Your task to perform on an android device: Open Reddit.com Image 0: 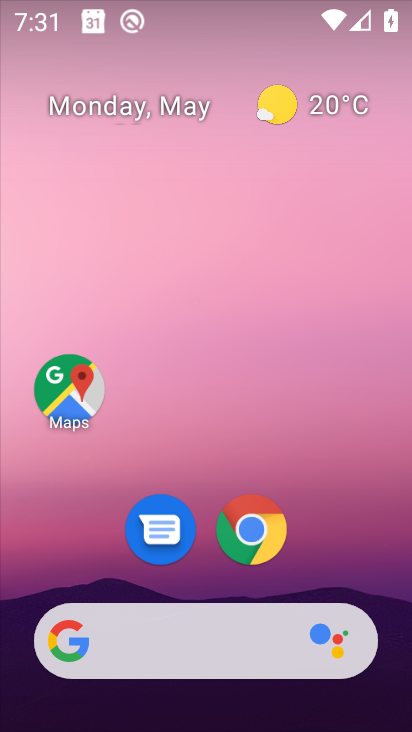
Step 0: press home button
Your task to perform on an android device: Open Reddit.com Image 1: 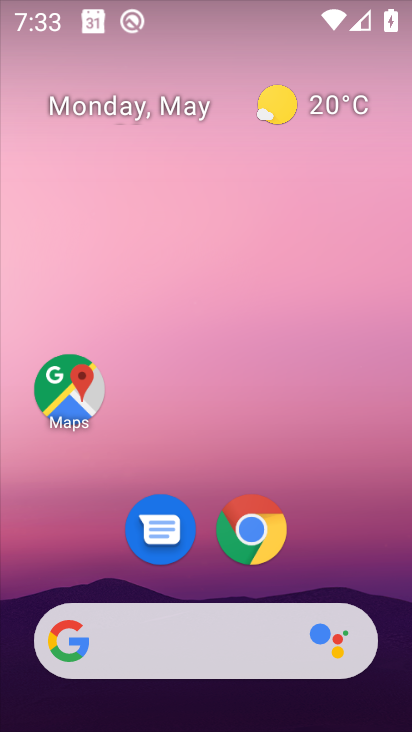
Step 1: click (258, 523)
Your task to perform on an android device: Open Reddit.com Image 2: 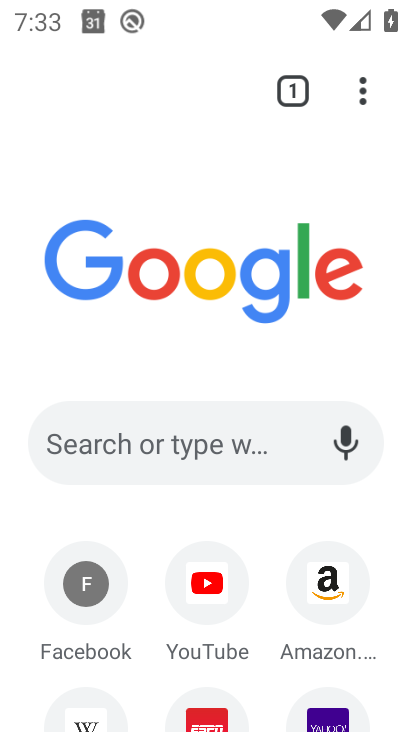
Step 2: click (226, 453)
Your task to perform on an android device: Open Reddit.com Image 3: 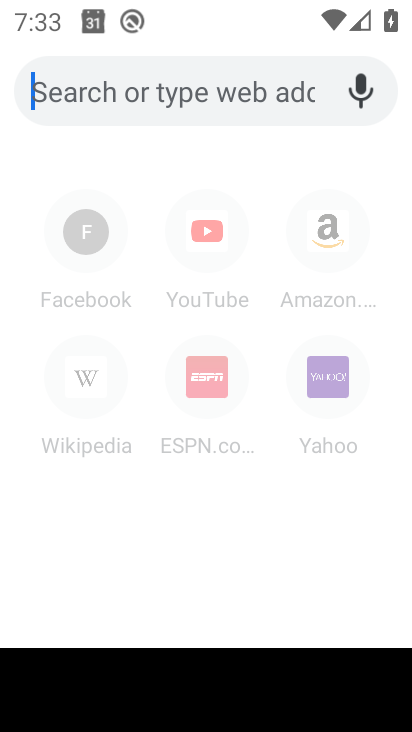
Step 3: type "Reddit.com"
Your task to perform on an android device: Open Reddit.com Image 4: 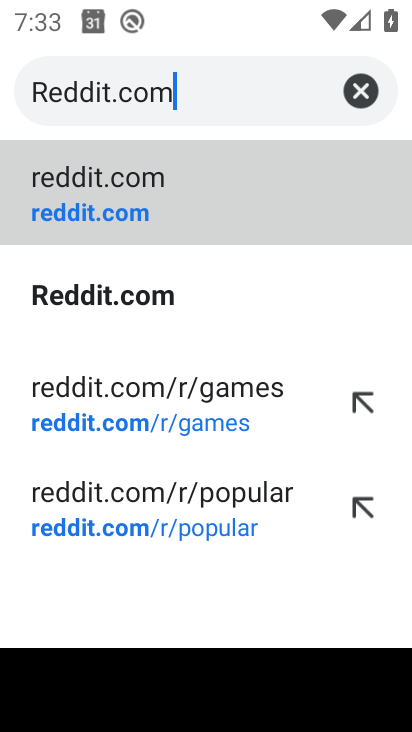
Step 4: type ""
Your task to perform on an android device: Open Reddit.com Image 5: 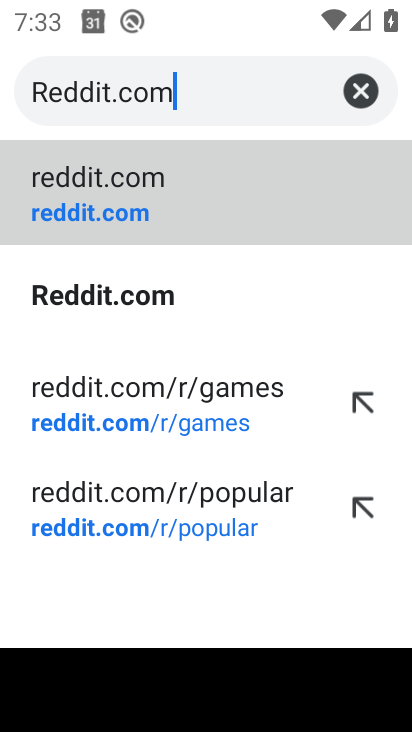
Step 5: click (88, 185)
Your task to perform on an android device: Open Reddit.com Image 6: 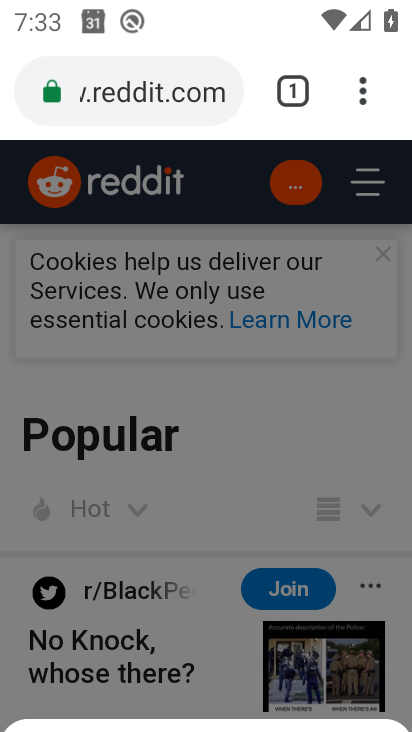
Step 6: task complete